Your task to perform on an android device: Search for sushi restaurants on Maps Image 0: 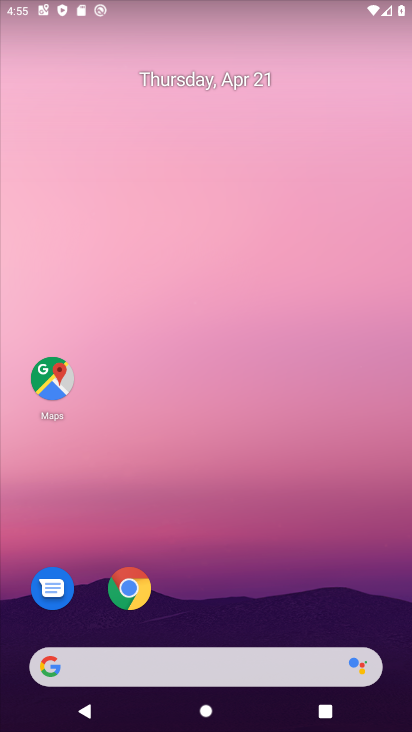
Step 0: click (46, 377)
Your task to perform on an android device: Search for sushi restaurants on Maps Image 1: 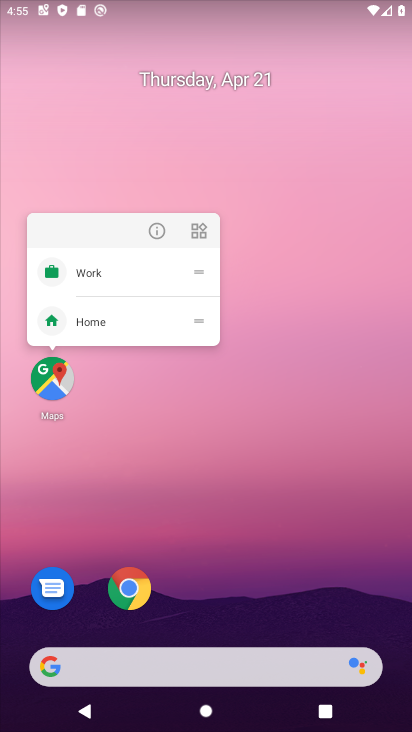
Step 1: click (48, 377)
Your task to perform on an android device: Search for sushi restaurants on Maps Image 2: 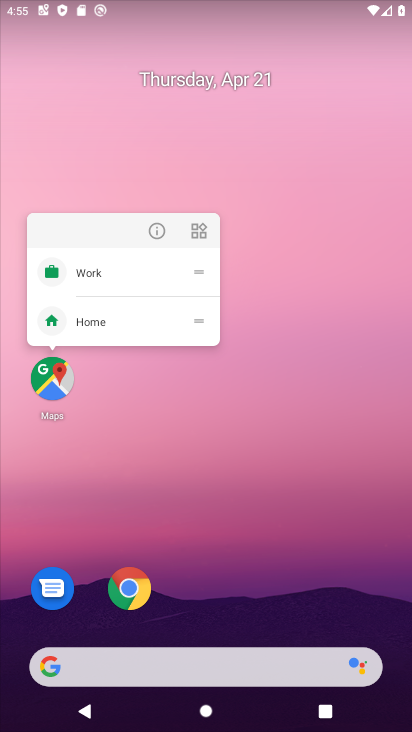
Step 2: click (61, 377)
Your task to perform on an android device: Search for sushi restaurants on Maps Image 3: 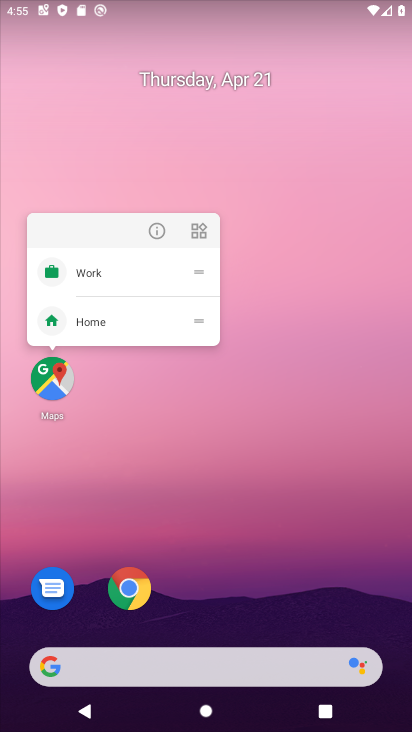
Step 3: click (51, 371)
Your task to perform on an android device: Search for sushi restaurants on Maps Image 4: 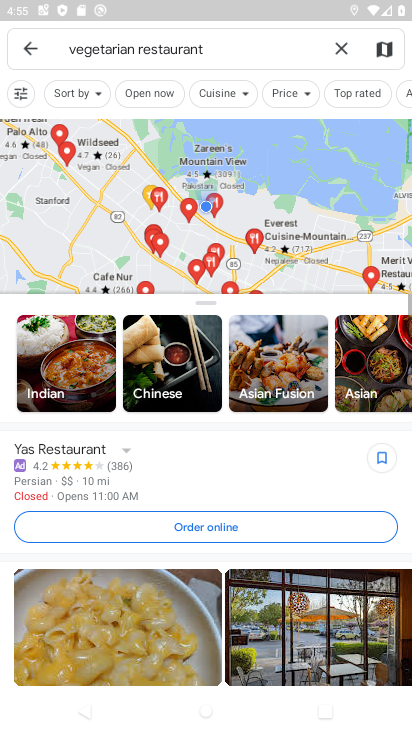
Step 4: click (339, 51)
Your task to perform on an android device: Search for sushi restaurants on Maps Image 5: 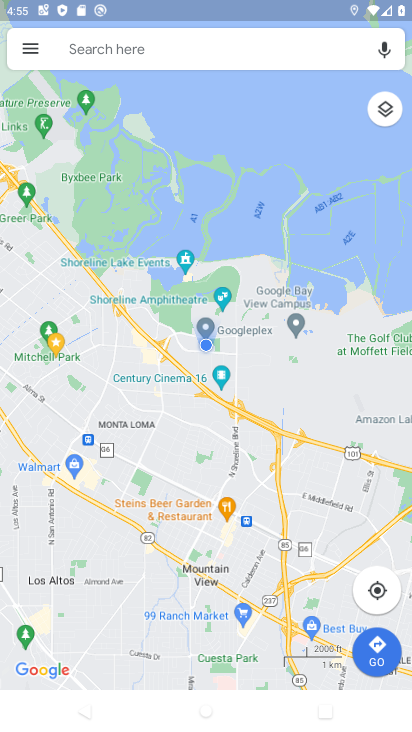
Step 5: click (104, 57)
Your task to perform on an android device: Search for sushi restaurants on Maps Image 6: 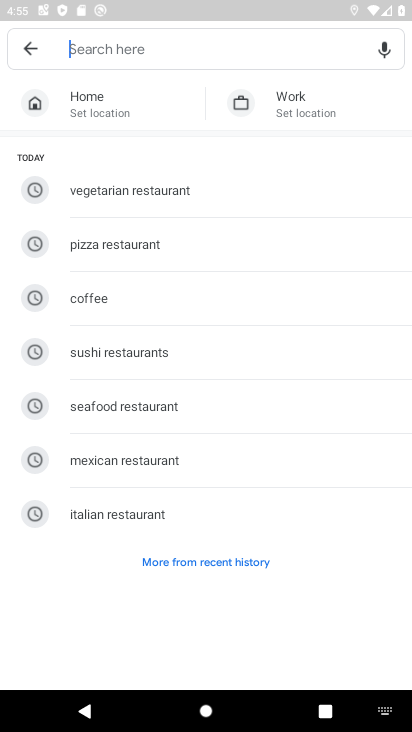
Step 6: click (119, 349)
Your task to perform on an android device: Search for sushi restaurants on Maps Image 7: 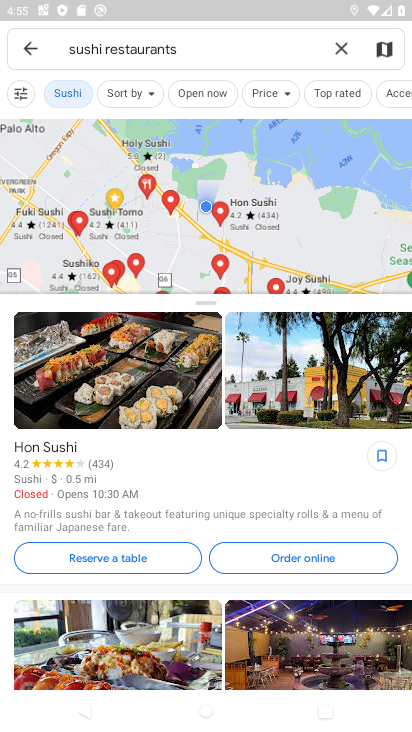
Step 7: task complete